Your task to perform on an android device: Turn on the flashlight Image 0: 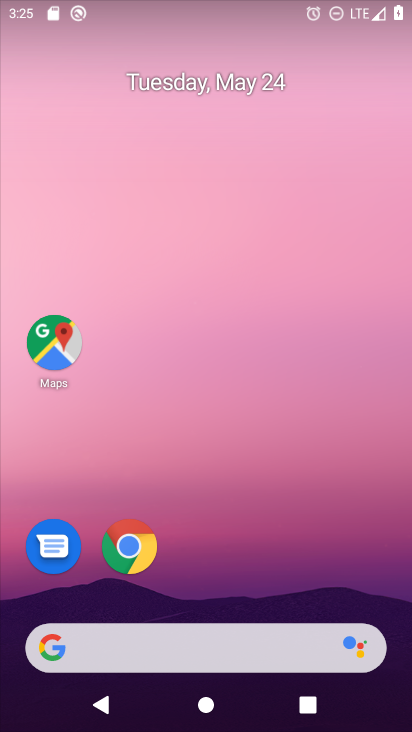
Step 0: drag from (190, 642) to (228, 13)
Your task to perform on an android device: Turn on the flashlight Image 1: 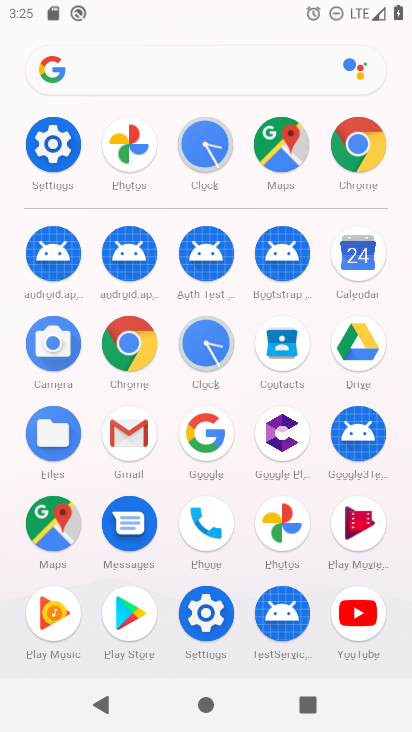
Step 1: click (60, 141)
Your task to perform on an android device: Turn on the flashlight Image 2: 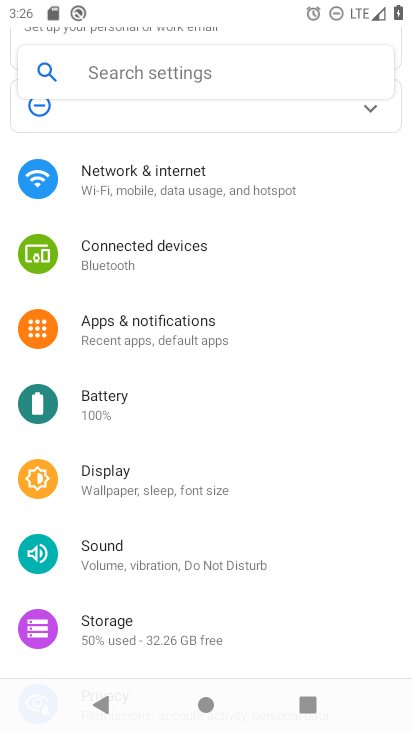
Step 2: task complete